Your task to perform on an android device: turn off priority inbox in the gmail app Image 0: 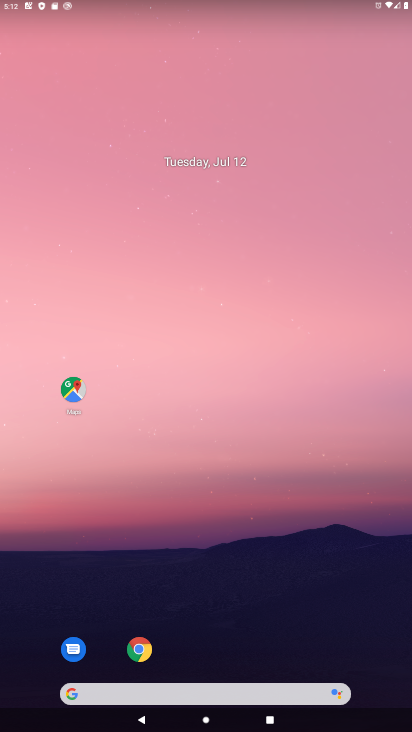
Step 0: drag from (183, 687) to (238, 46)
Your task to perform on an android device: turn off priority inbox in the gmail app Image 1: 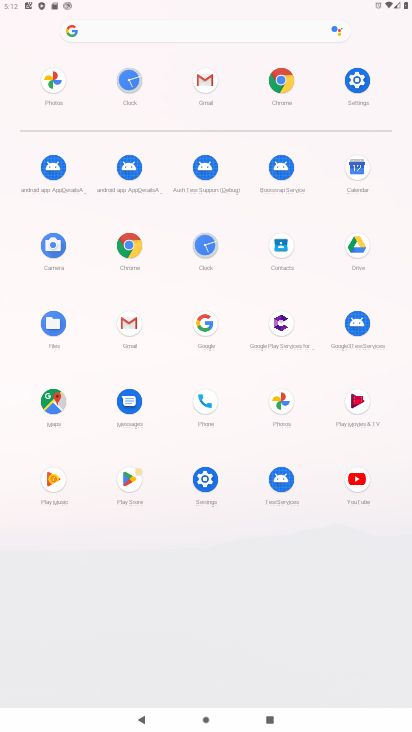
Step 1: click (205, 81)
Your task to perform on an android device: turn off priority inbox in the gmail app Image 2: 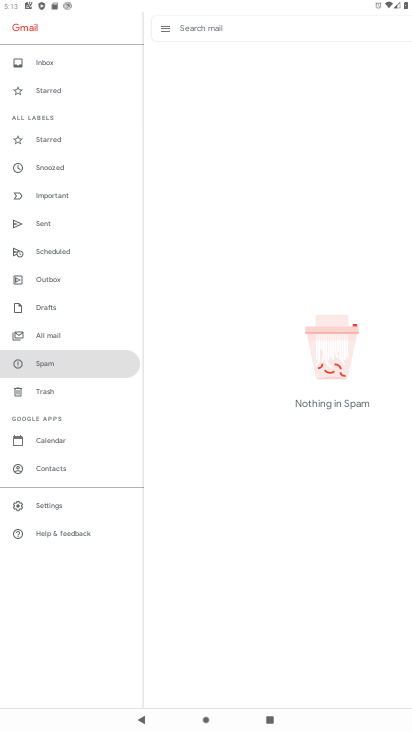
Step 2: click (43, 503)
Your task to perform on an android device: turn off priority inbox in the gmail app Image 3: 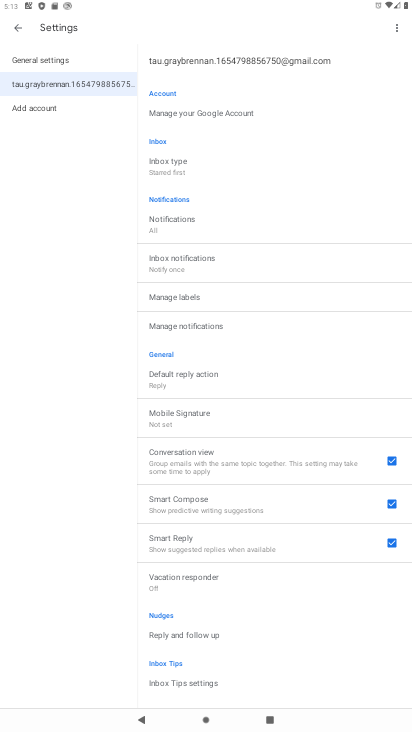
Step 3: click (170, 171)
Your task to perform on an android device: turn off priority inbox in the gmail app Image 4: 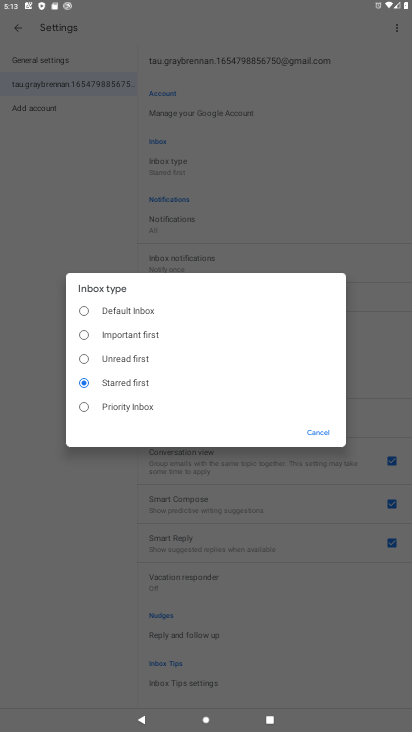
Step 4: click (121, 382)
Your task to perform on an android device: turn off priority inbox in the gmail app Image 5: 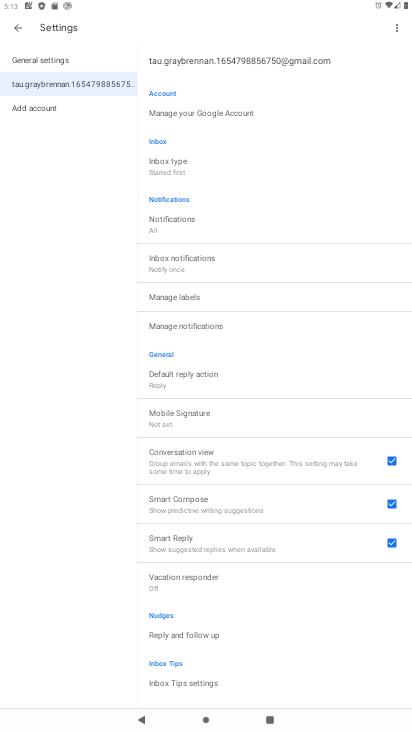
Step 5: task complete